Your task to perform on an android device: Open maps Image 0: 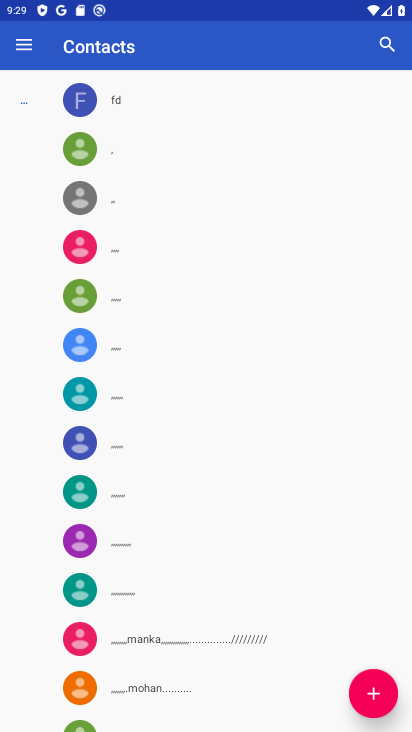
Step 0: press home button
Your task to perform on an android device: Open maps Image 1: 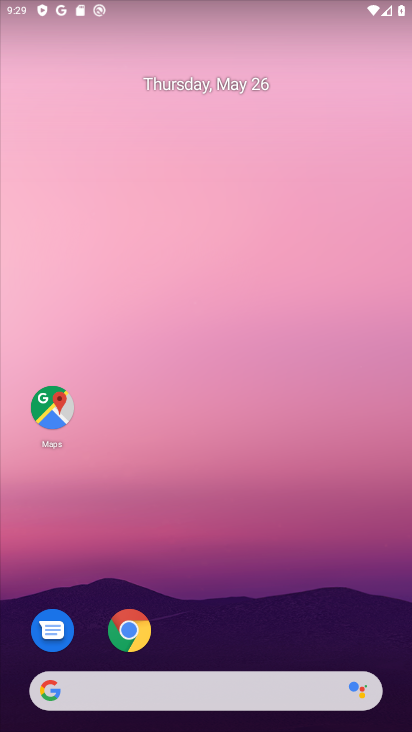
Step 1: click (56, 416)
Your task to perform on an android device: Open maps Image 2: 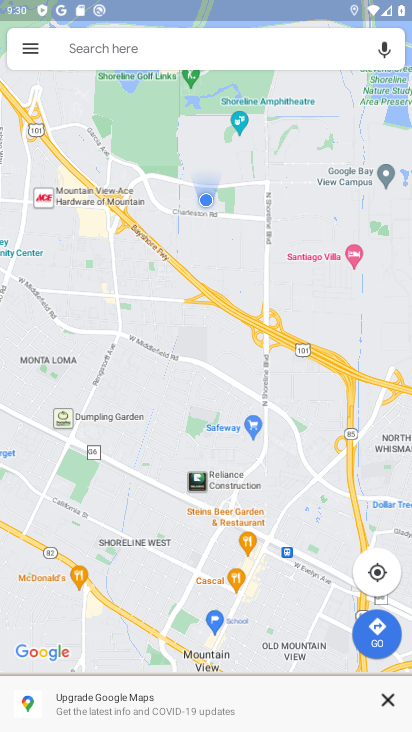
Step 2: task complete